Your task to perform on an android device: turn off wifi Image 0: 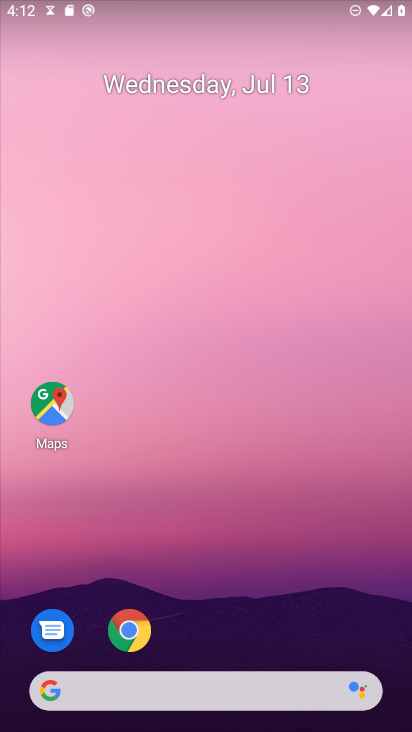
Step 0: press home button
Your task to perform on an android device: turn off wifi Image 1: 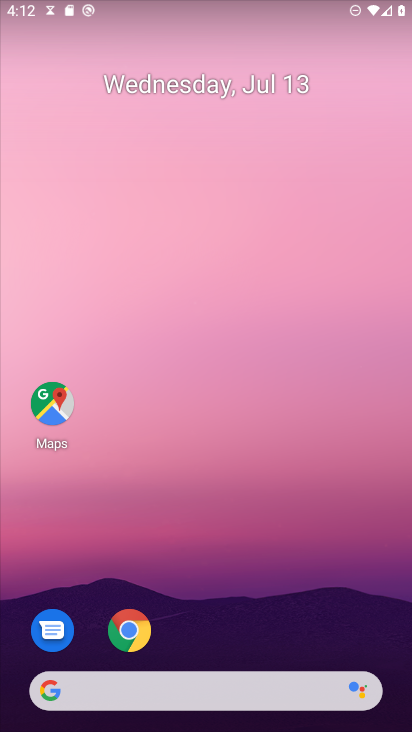
Step 1: press home button
Your task to perform on an android device: turn off wifi Image 2: 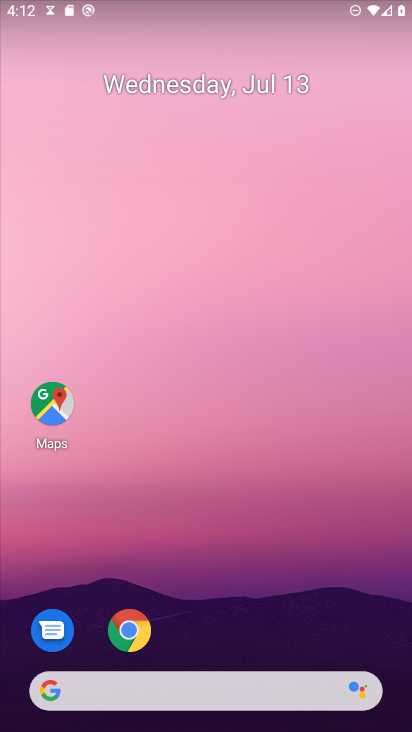
Step 2: drag from (193, 51) to (199, 387)
Your task to perform on an android device: turn off wifi Image 3: 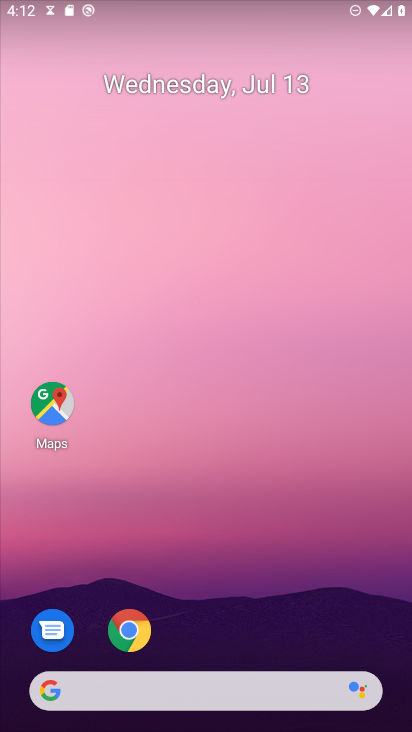
Step 3: drag from (198, 0) to (198, 413)
Your task to perform on an android device: turn off wifi Image 4: 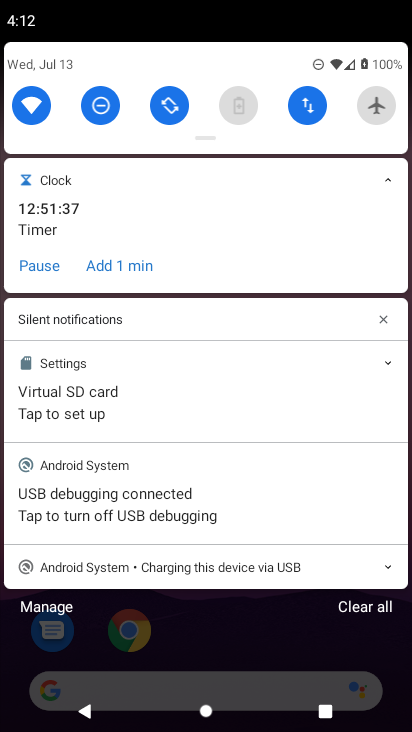
Step 4: click (13, 90)
Your task to perform on an android device: turn off wifi Image 5: 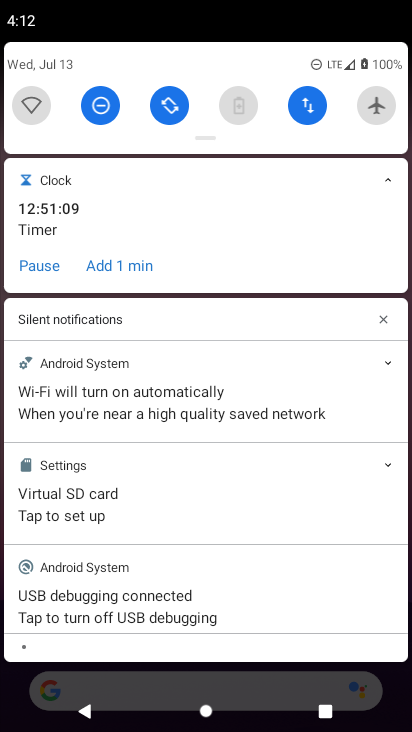
Step 5: task complete